Your task to perform on an android device: move a message to another label in the gmail app Image 0: 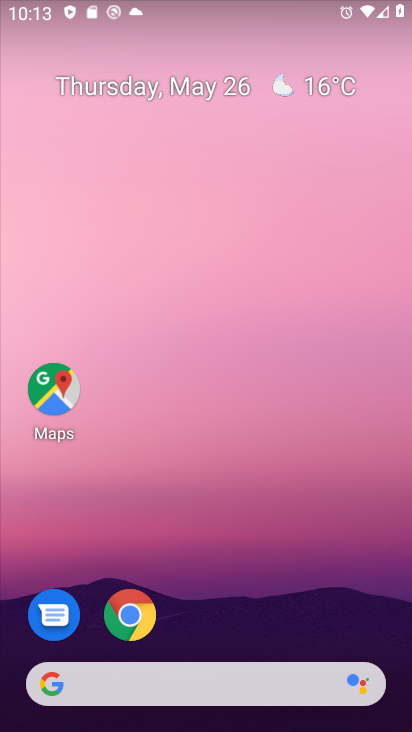
Step 0: drag from (299, 720) to (232, 162)
Your task to perform on an android device: move a message to another label in the gmail app Image 1: 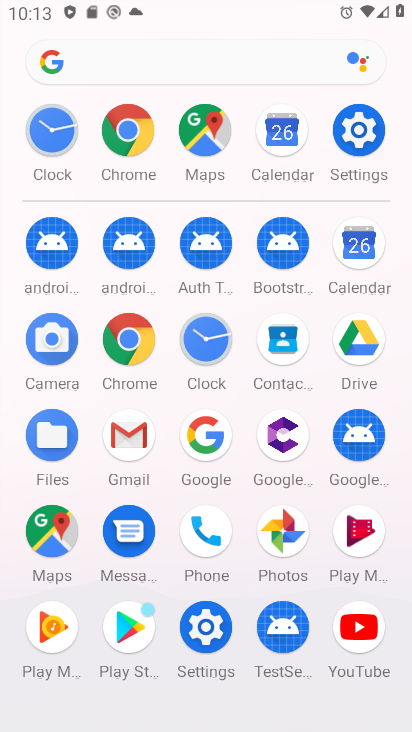
Step 1: click (142, 456)
Your task to perform on an android device: move a message to another label in the gmail app Image 2: 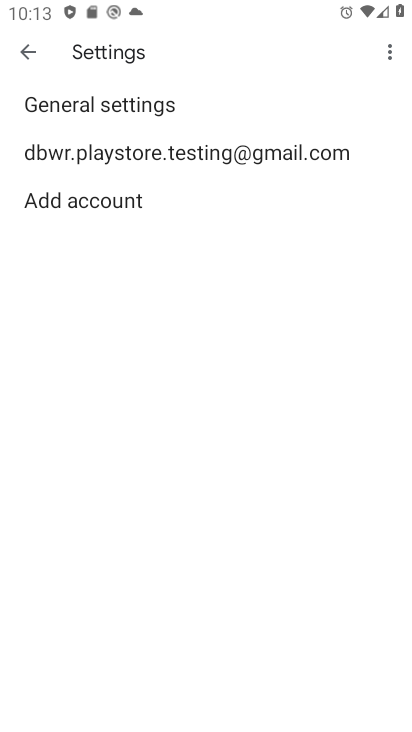
Step 2: click (131, 151)
Your task to perform on an android device: move a message to another label in the gmail app Image 3: 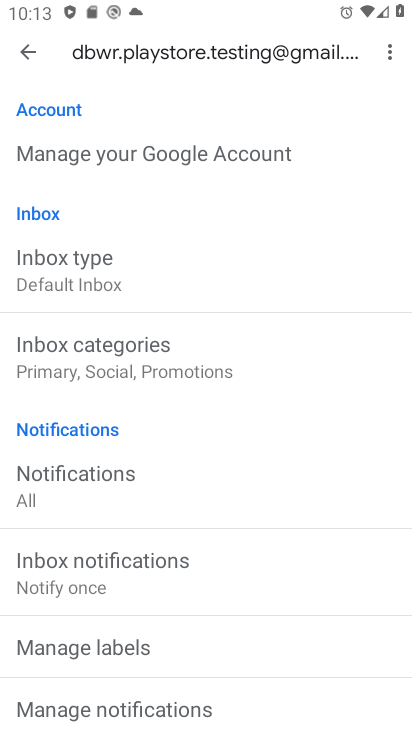
Step 3: click (120, 634)
Your task to perform on an android device: move a message to another label in the gmail app Image 4: 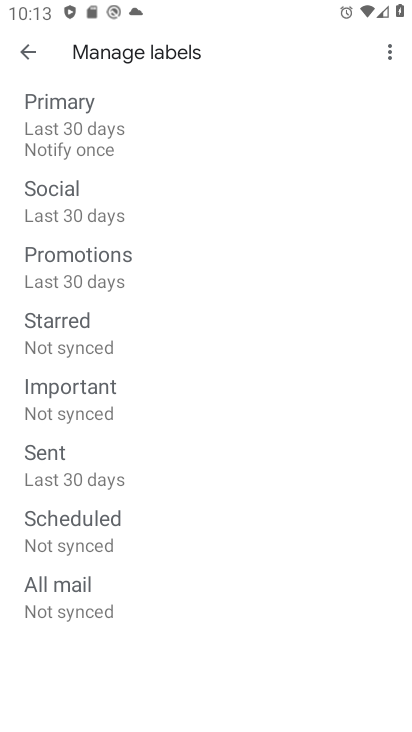
Step 4: click (107, 536)
Your task to perform on an android device: move a message to another label in the gmail app Image 5: 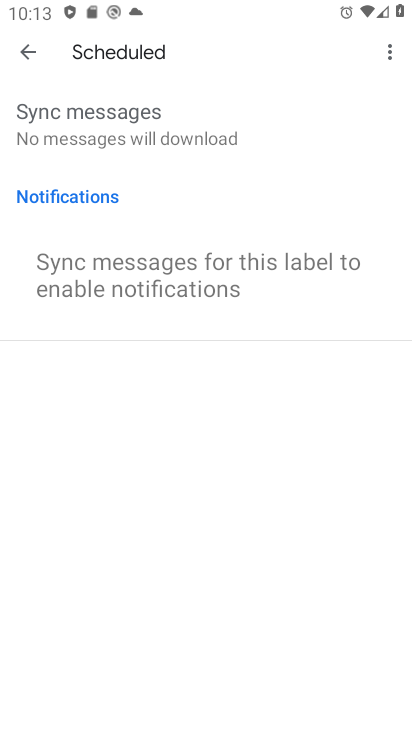
Step 5: task complete